Your task to perform on an android device: turn on bluetooth scan Image 0: 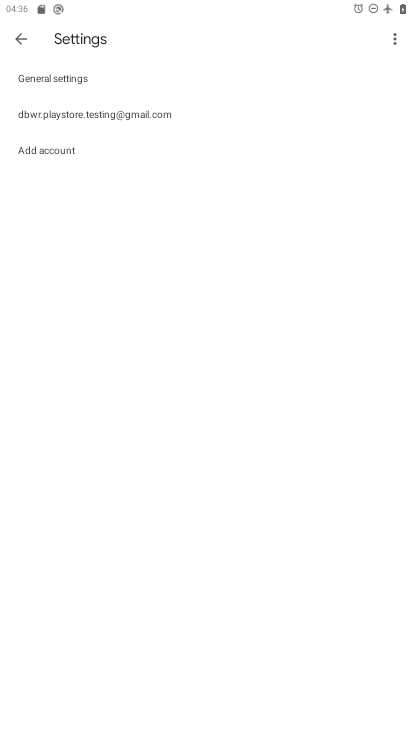
Step 0: press home button
Your task to perform on an android device: turn on bluetooth scan Image 1: 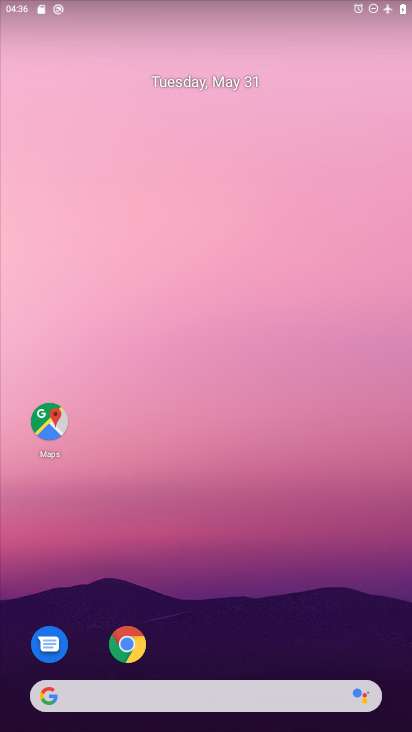
Step 1: drag from (315, 620) to (255, 98)
Your task to perform on an android device: turn on bluetooth scan Image 2: 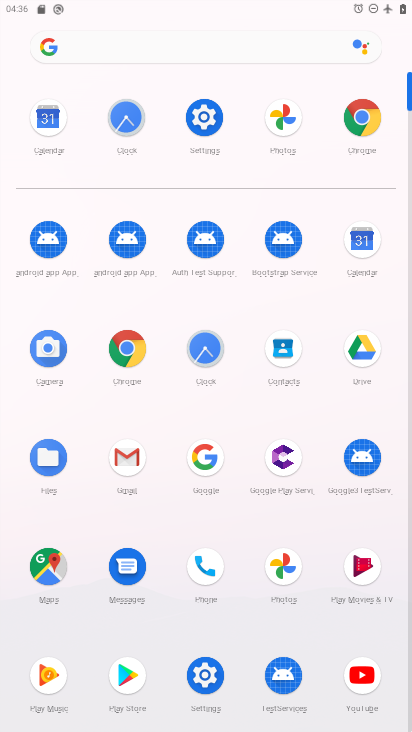
Step 2: click (206, 117)
Your task to perform on an android device: turn on bluetooth scan Image 3: 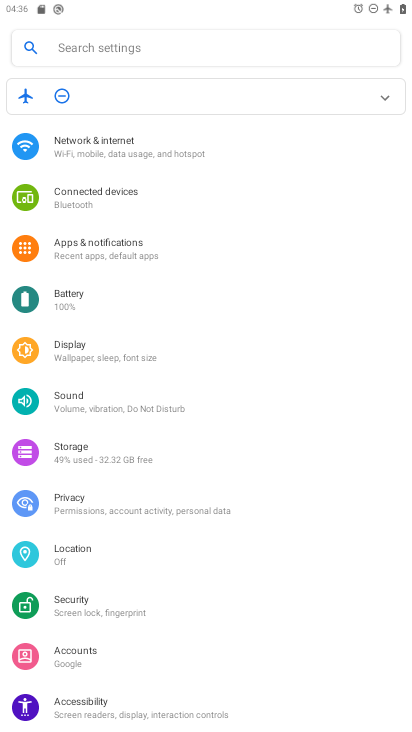
Step 3: click (99, 157)
Your task to perform on an android device: turn on bluetooth scan Image 4: 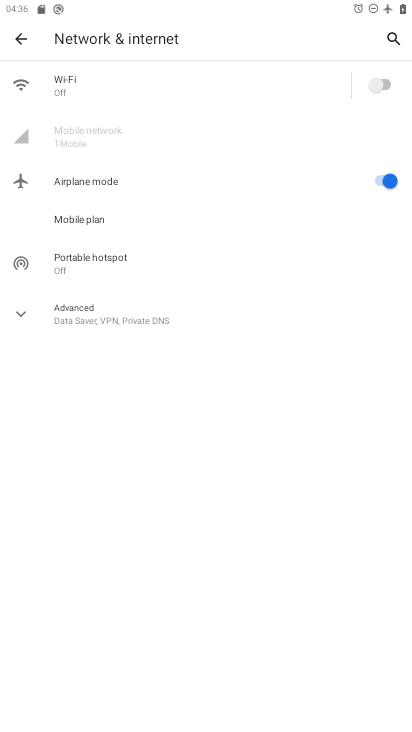
Step 4: click (32, 41)
Your task to perform on an android device: turn on bluetooth scan Image 5: 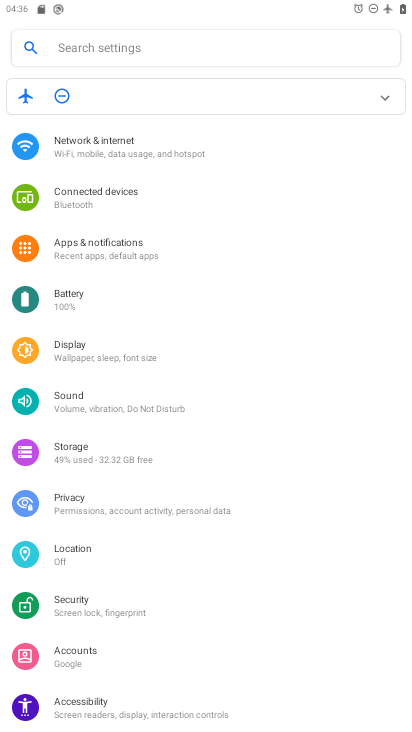
Step 5: click (97, 149)
Your task to perform on an android device: turn on bluetooth scan Image 6: 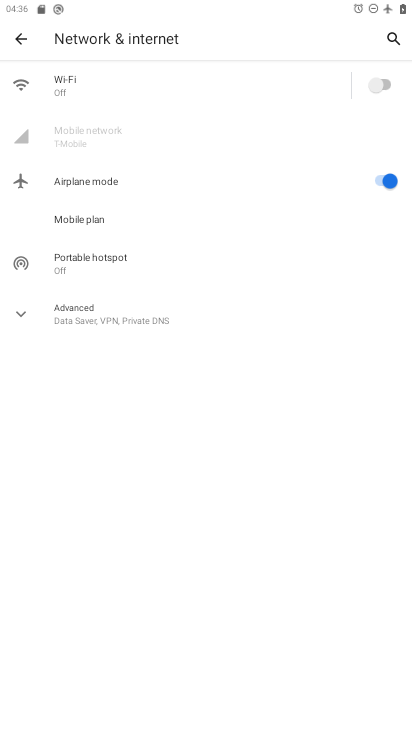
Step 6: click (118, 77)
Your task to perform on an android device: turn on bluetooth scan Image 7: 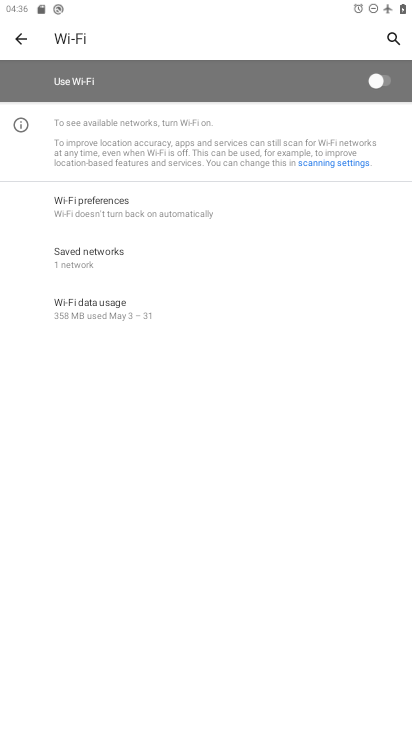
Step 7: click (342, 165)
Your task to perform on an android device: turn on bluetooth scan Image 8: 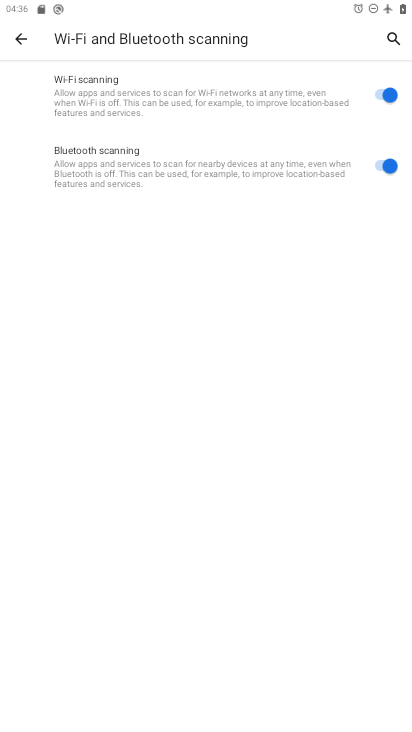
Step 8: task complete